Your task to perform on an android device: toggle data saver in the chrome app Image 0: 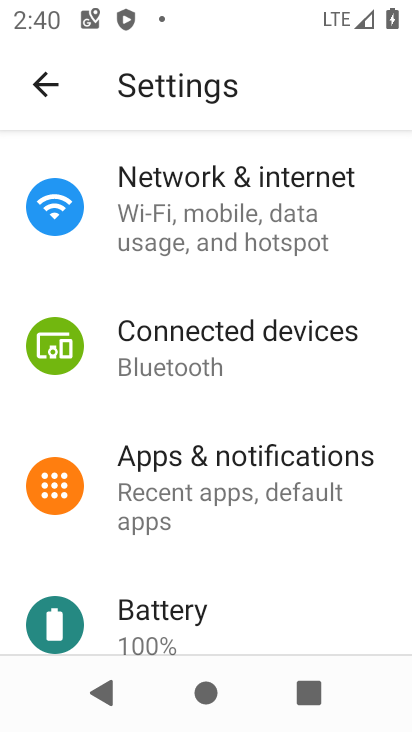
Step 0: press home button
Your task to perform on an android device: toggle data saver in the chrome app Image 1: 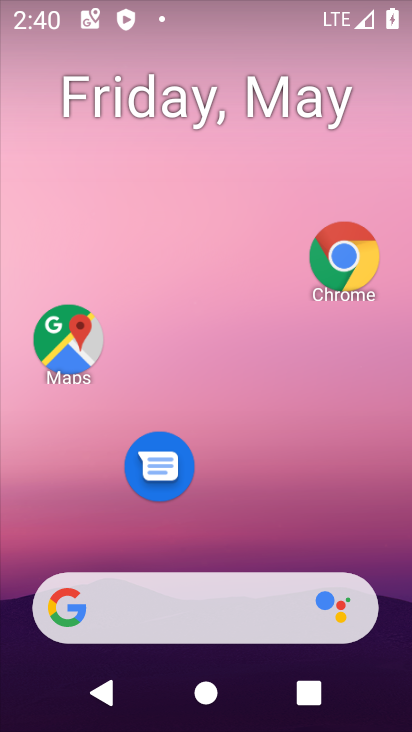
Step 1: click (333, 263)
Your task to perform on an android device: toggle data saver in the chrome app Image 2: 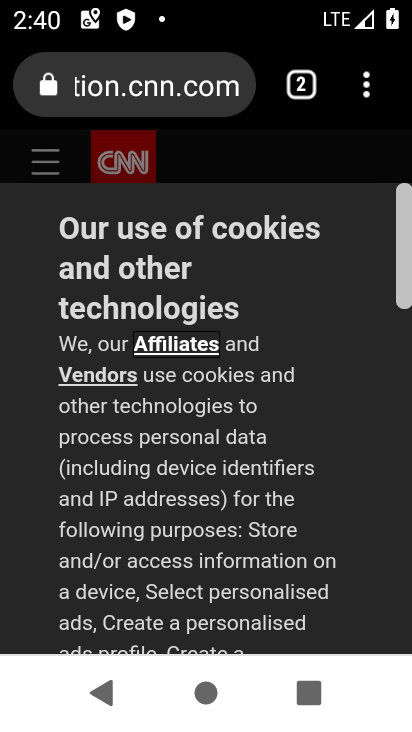
Step 2: drag from (374, 91) to (95, 520)
Your task to perform on an android device: toggle data saver in the chrome app Image 3: 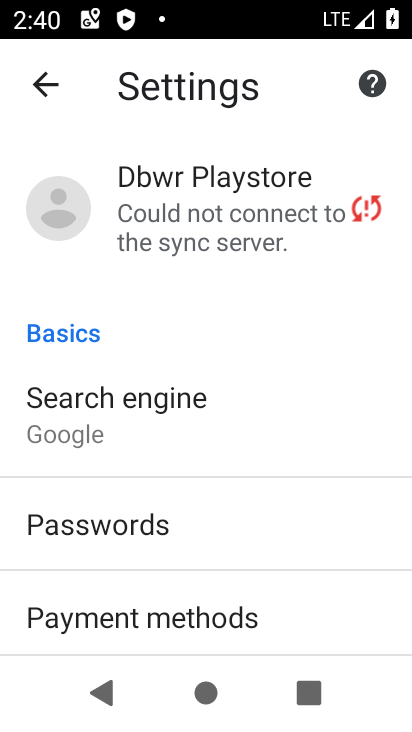
Step 3: drag from (253, 586) to (238, 253)
Your task to perform on an android device: toggle data saver in the chrome app Image 4: 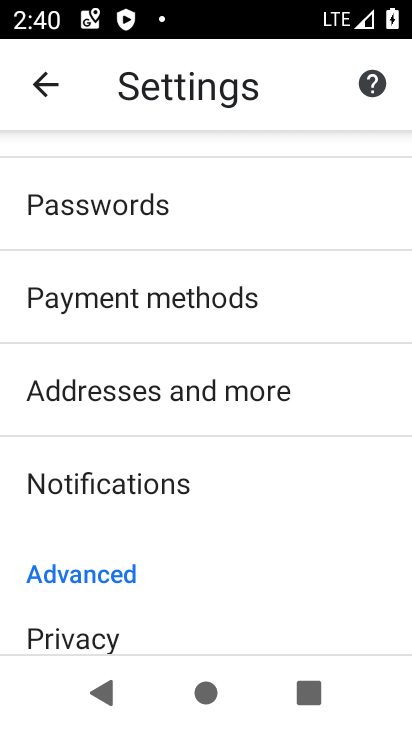
Step 4: drag from (209, 536) to (217, 220)
Your task to perform on an android device: toggle data saver in the chrome app Image 5: 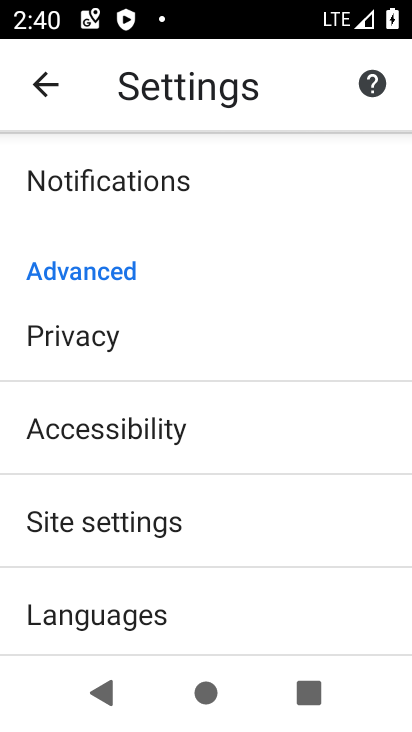
Step 5: drag from (191, 569) to (189, 259)
Your task to perform on an android device: toggle data saver in the chrome app Image 6: 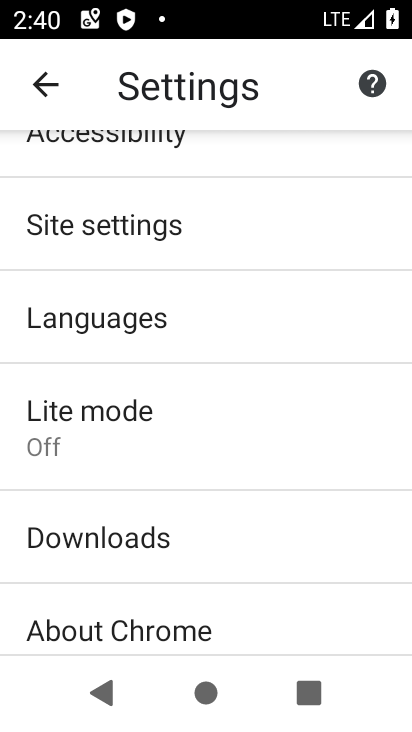
Step 6: click (115, 419)
Your task to perform on an android device: toggle data saver in the chrome app Image 7: 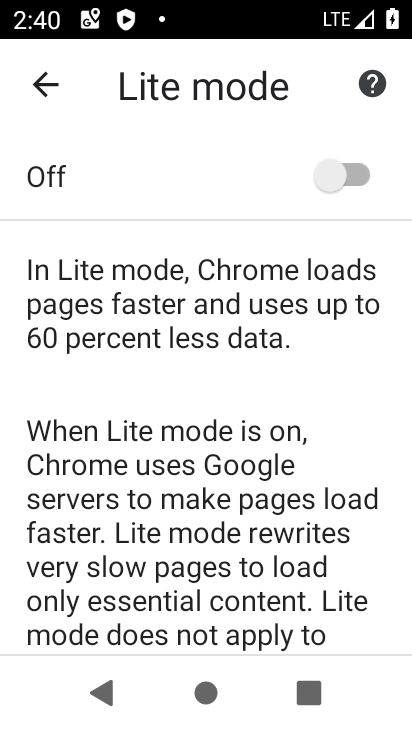
Step 7: click (329, 166)
Your task to perform on an android device: toggle data saver in the chrome app Image 8: 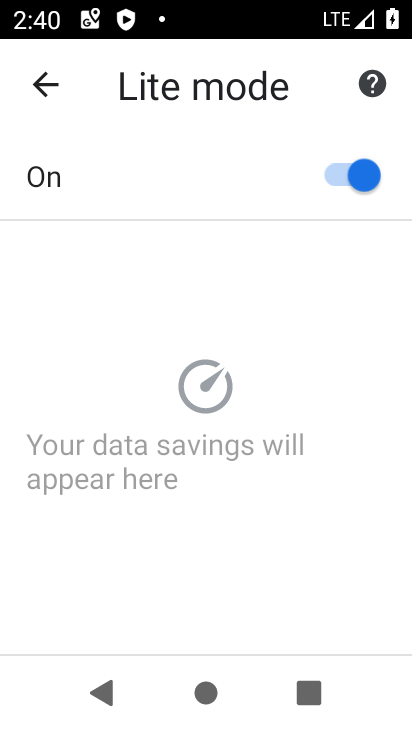
Step 8: task complete